Your task to perform on an android device: see creations saved in the google photos Image 0: 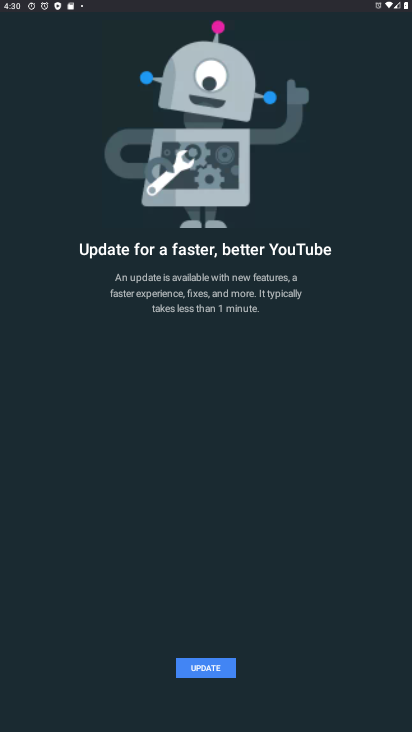
Step 0: press home button
Your task to perform on an android device: see creations saved in the google photos Image 1: 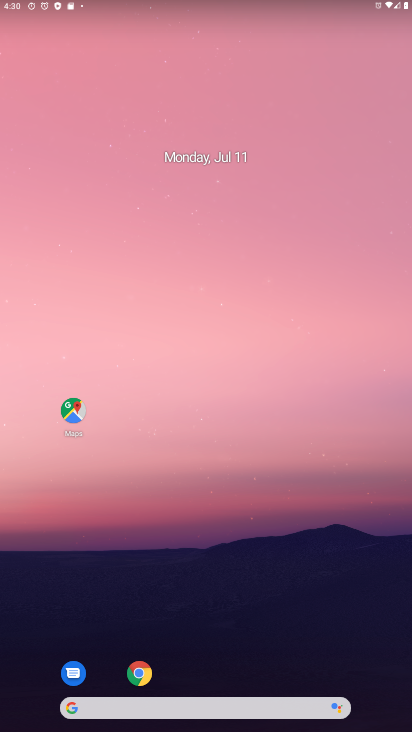
Step 1: drag from (243, 666) to (320, 2)
Your task to perform on an android device: see creations saved in the google photos Image 2: 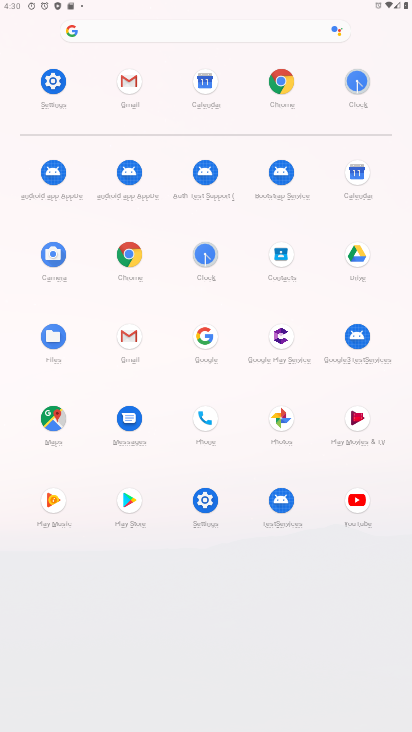
Step 2: click (281, 413)
Your task to perform on an android device: see creations saved in the google photos Image 3: 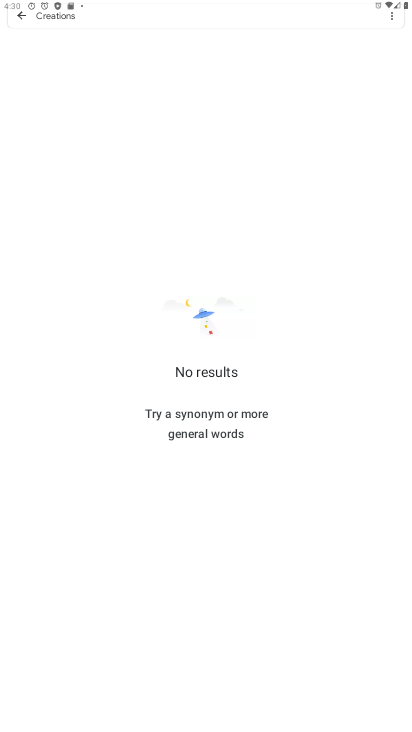
Step 3: task complete